Your task to perform on an android device: make emails show in primary in the gmail app Image 0: 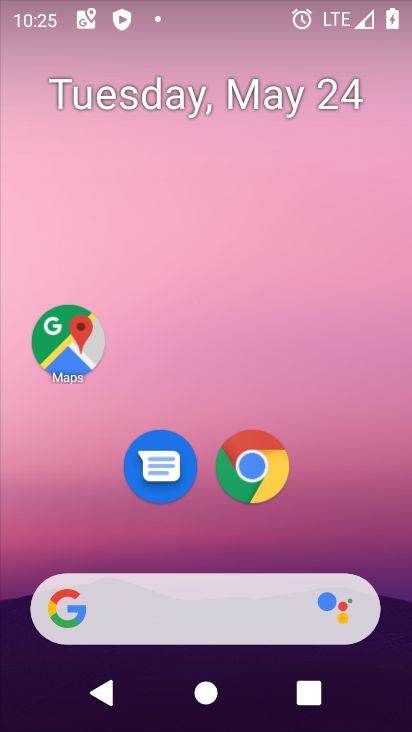
Step 0: drag from (390, 566) to (394, 150)
Your task to perform on an android device: make emails show in primary in the gmail app Image 1: 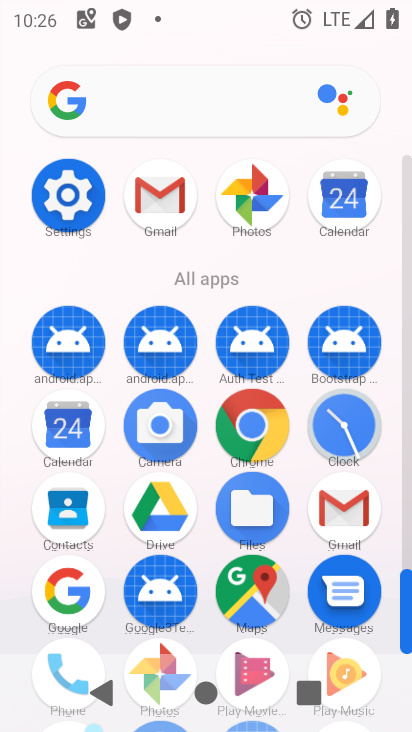
Step 1: click (350, 514)
Your task to perform on an android device: make emails show in primary in the gmail app Image 2: 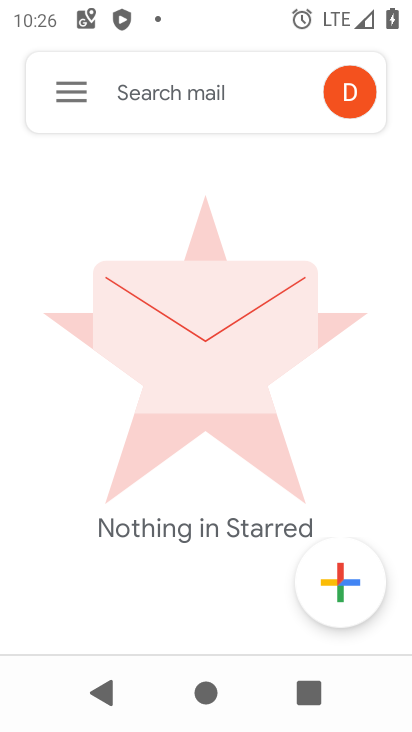
Step 2: click (62, 109)
Your task to perform on an android device: make emails show in primary in the gmail app Image 3: 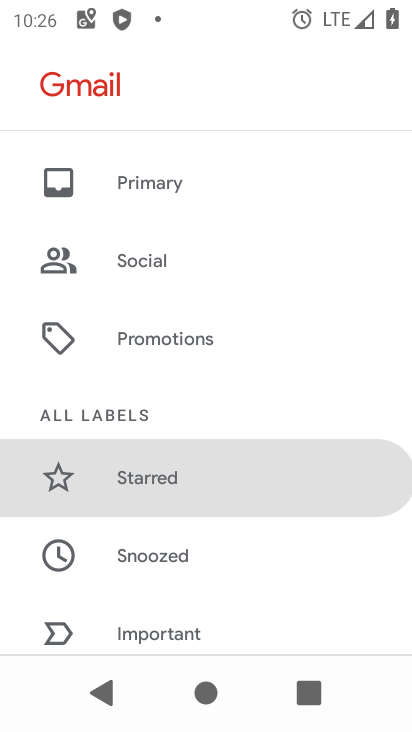
Step 3: drag from (335, 530) to (333, 412)
Your task to perform on an android device: make emails show in primary in the gmail app Image 4: 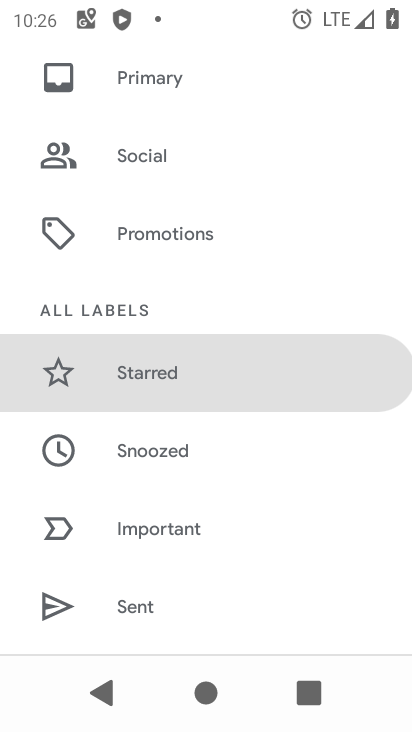
Step 4: drag from (331, 570) to (336, 434)
Your task to perform on an android device: make emails show in primary in the gmail app Image 5: 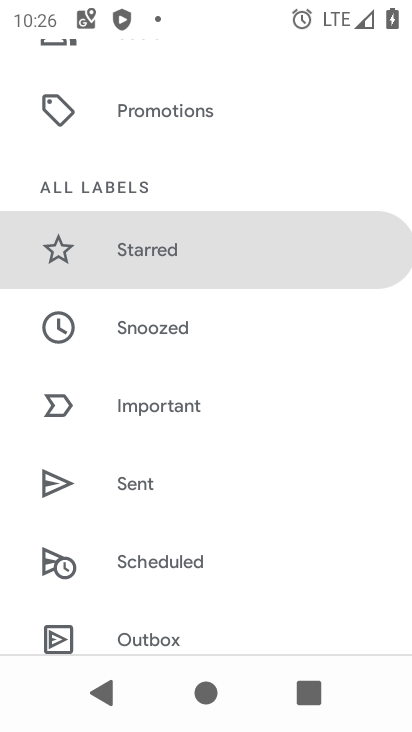
Step 5: drag from (312, 569) to (321, 447)
Your task to perform on an android device: make emails show in primary in the gmail app Image 6: 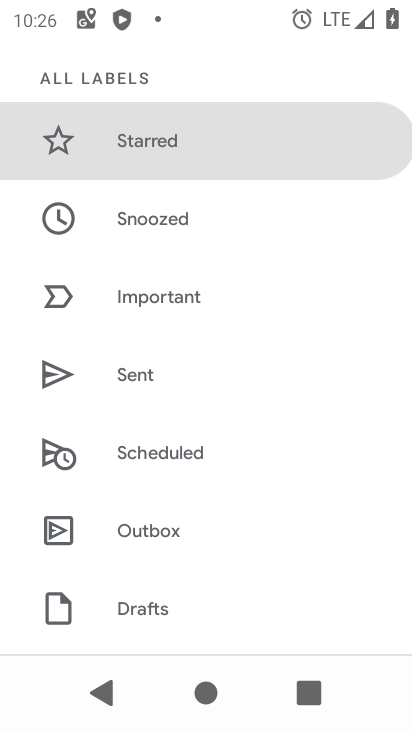
Step 6: drag from (324, 581) to (324, 460)
Your task to perform on an android device: make emails show in primary in the gmail app Image 7: 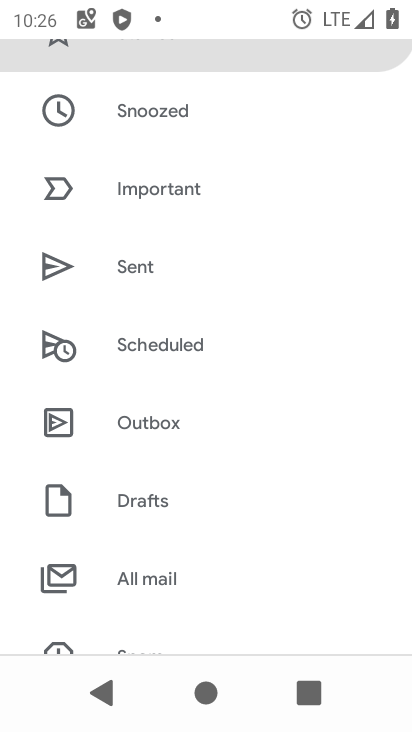
Step 7: drag from (328, 555) to (324, 435)
Your task to perform on an android device: make emails show in primary in the gmail app Image 8: 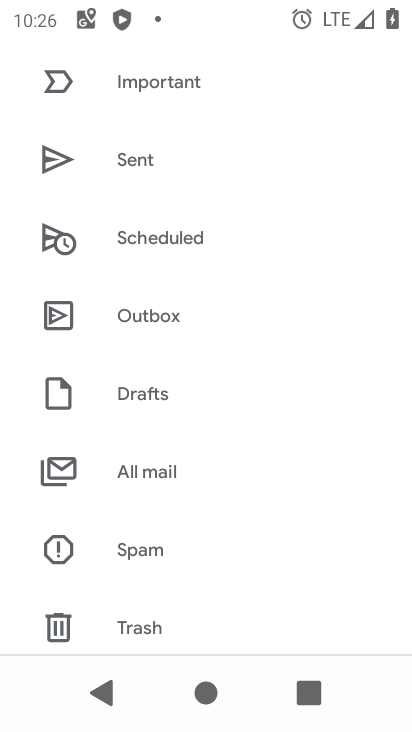
Step 8: drag from (302, 553) to (299, 408)
Your task to perform on an android device: make emails show in primary in the gmail app Image 9: 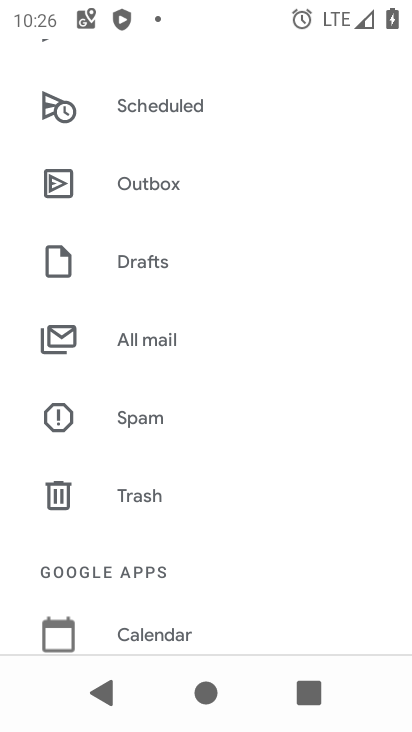
Step 9: drag from (315, 523) to (325, 405)
Your task to perform on an android device: make emails show in primary in the gmail app Image 10: 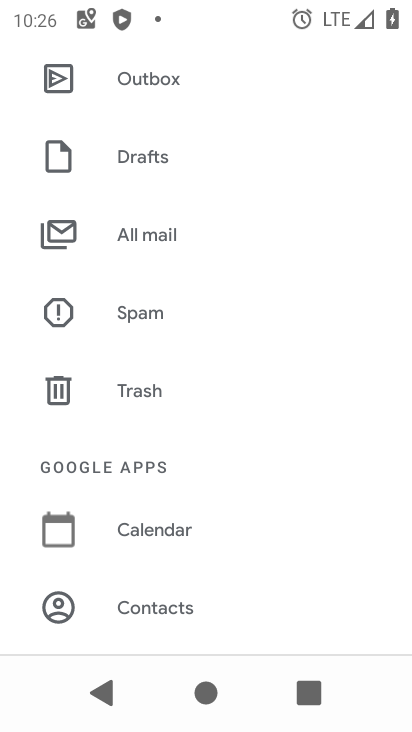
Step 10: drag from (337, 576) to (334, 413)
Your task to perform on an android device: make emails show in primary in the gmail app Image 11: 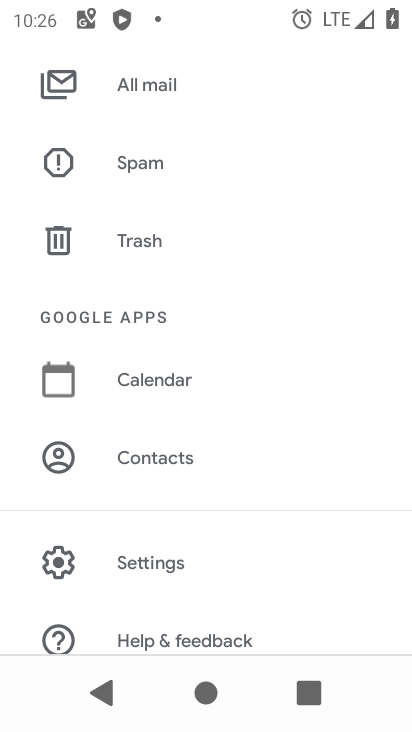
Step 11: drag from (313, 577) to (312, 467)
Your task to perform on an android device: make emails show in primary in the gmail app Image 12: 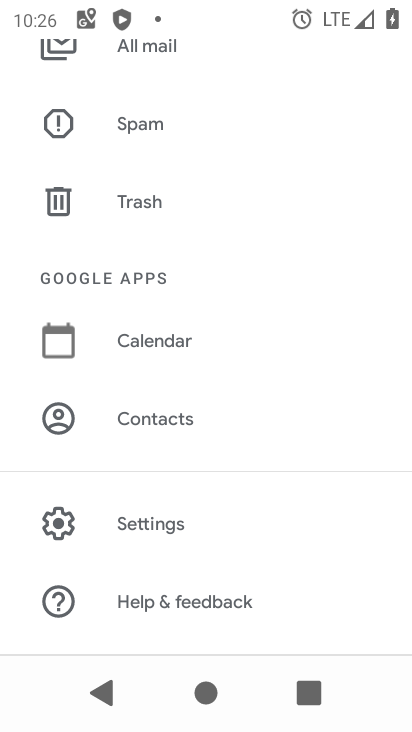
Step 12: click (192, 544)
Your task to perform on an android device: make emails show in primary in the gmail app Image 13: 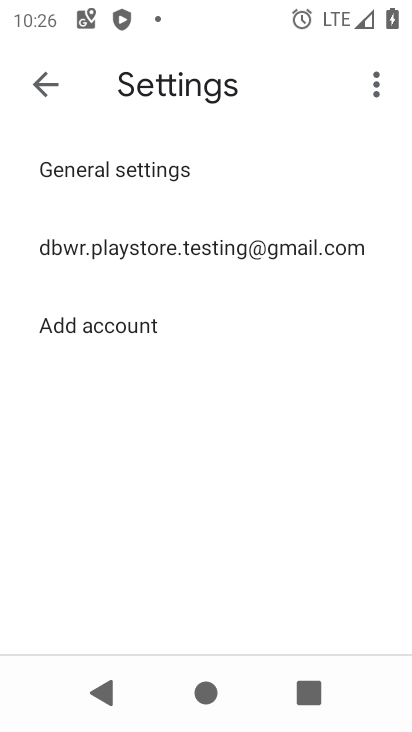
Step 13: click (264, 247)
Your task to perform on an android device: make emails show in primary in the gmail app Image 14: 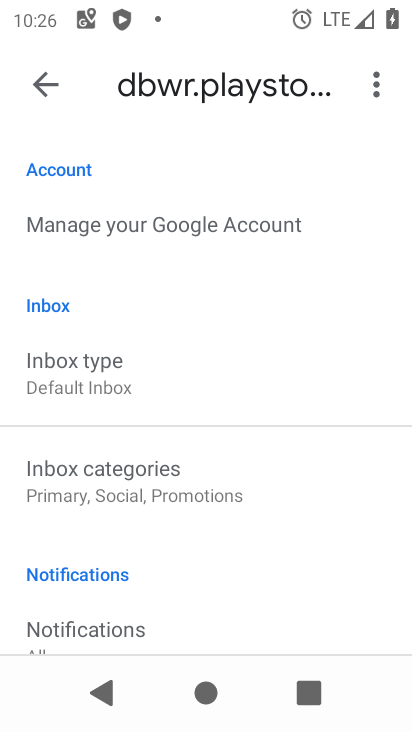
Step 14: drag from (325, 522) to (330, 437)
Your task to perform on an android device: make emails show in primary in the gmail app Image 15: 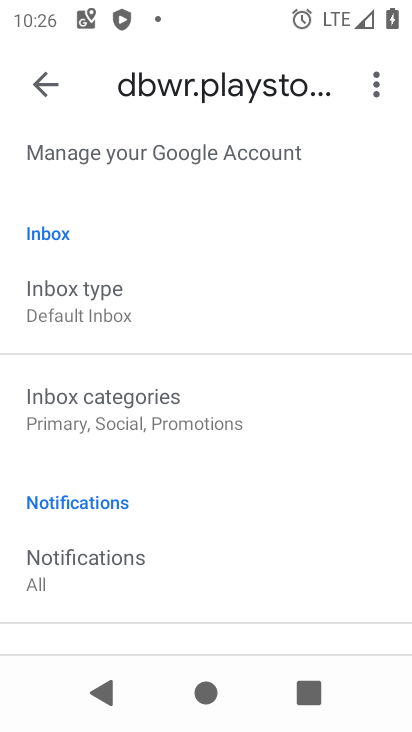
Step 15: drag from (340, 537) to (339, 446)
Your task to perform on an android device: make emails show in primary in the gmail app Image 16: 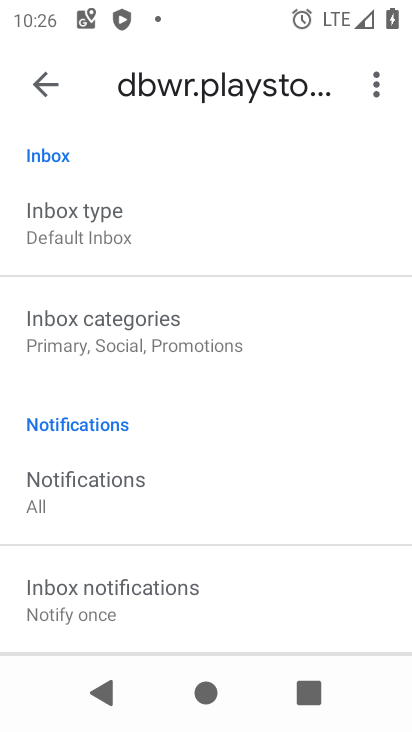
Step 16: drag from (325, 549) to (318, 467)
Your task to perform on an android device: make emails show in primary in the gmail app Image 17: 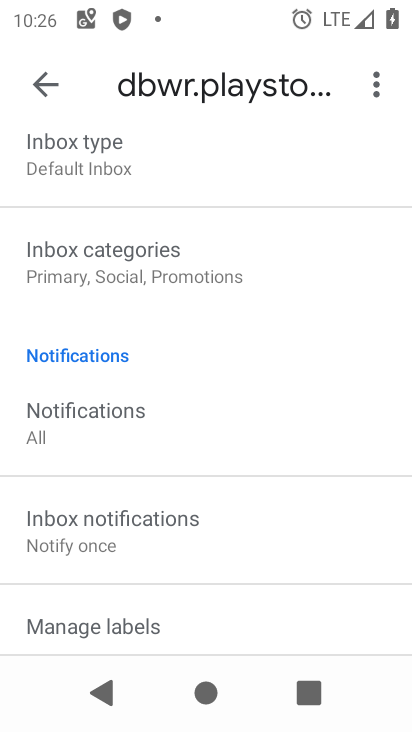
Step 17: click (248, 261)
Your task to perform on an android device: make emails show in primary in the gmail app Image 18: 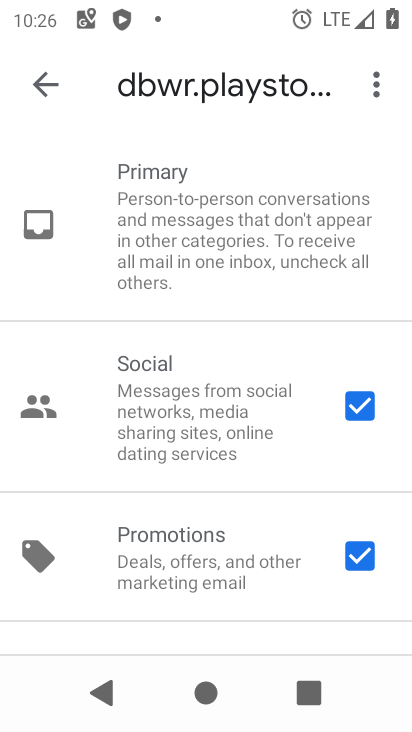
Step 18: click (349, 410)
Your task to perform on an android device: make emails show in primary in the gmail app Image 19: 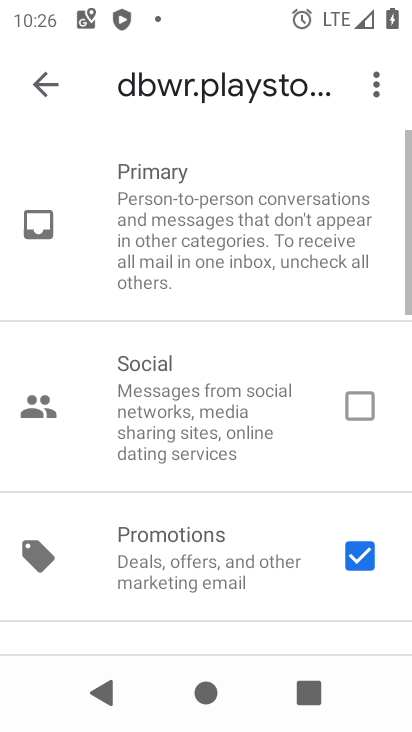
Step 19: click (353, 558)
Your task to perform on an android device: make emails show in primary in the gmail app Image 20: 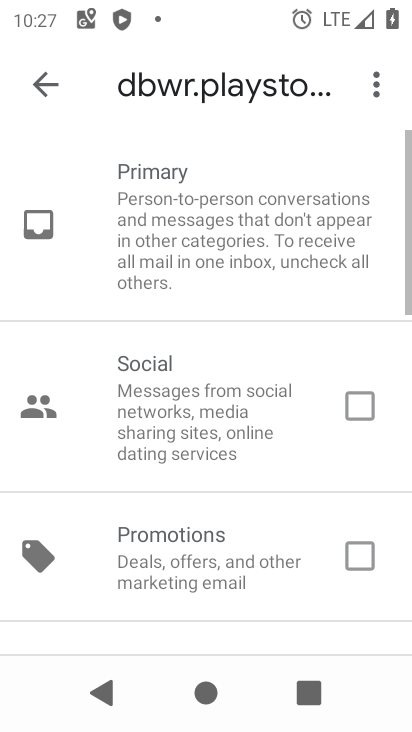
Step 20: task complete